Your task to perform on an android device: turn on notifications settings in the gmail app Image 0: 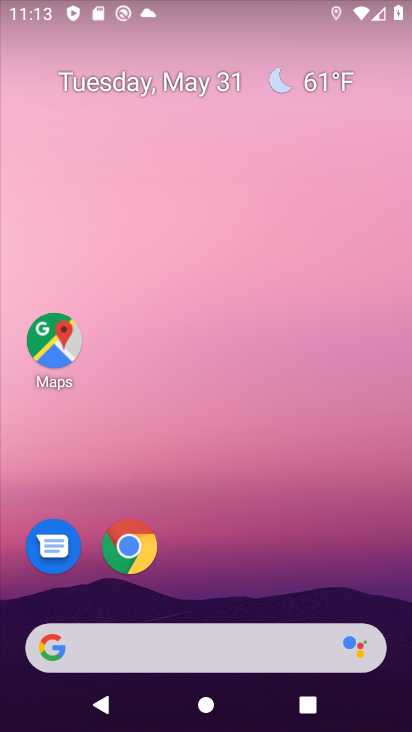
Step 0: drag from (266, 609) to (246, 43)
Your task to perform on an android device: turn on notifications settings in the gmail app Image 1: 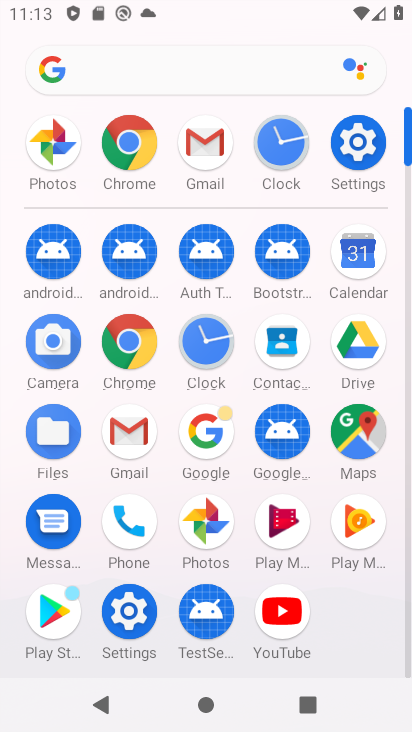
Step 1: click (122, 430)
Your task to perform on an android device: turn on notifications settings in the gmail app Image 2: 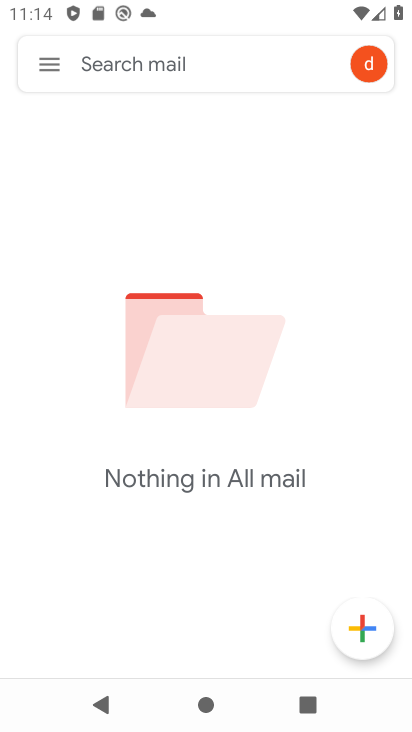
Step 2: click (48, 61)
Your task to perform on an android device: turn on notifications settings in the gmail app Image 3: 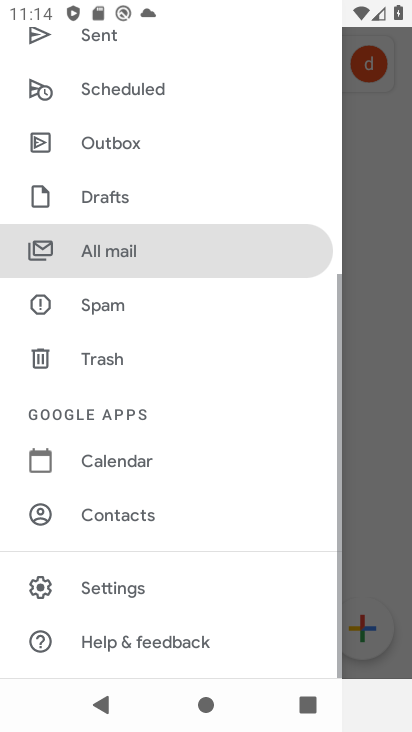
Step 3: click (126, 566)
Your task to perform on an android device: turn on notifications settings in the gmail app Image 4: 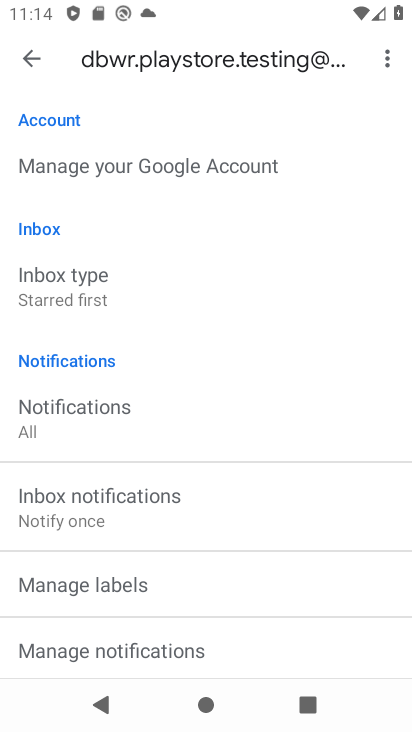
Step 4: click (15, 56)
Your task to perform on an android device: turn on notifications settings in the gmail app Image 5: 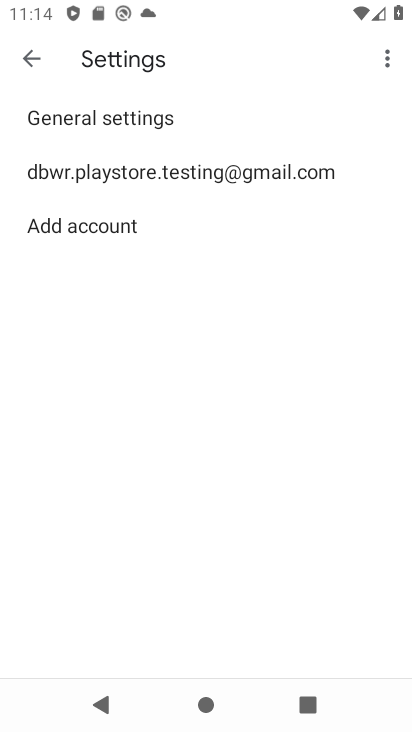
Step 5: click (62, 107)
Your task to perform on an android device: turn on notifications settings in the gmail app Image 6: 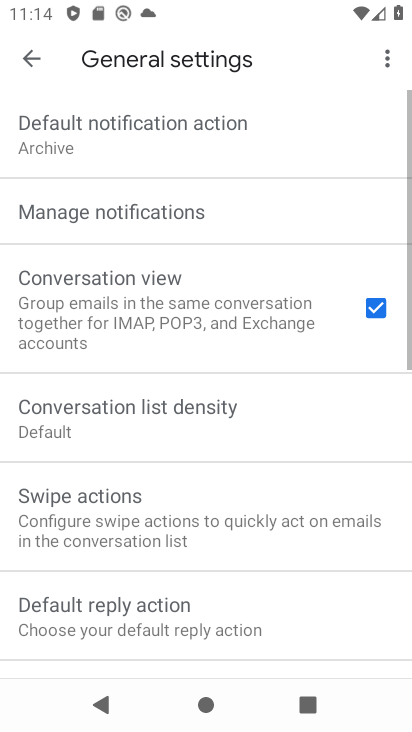
Step 6: click (166, 193)
Your task to perform on an android device: turn on notifications settings in the gmail app Image 7: 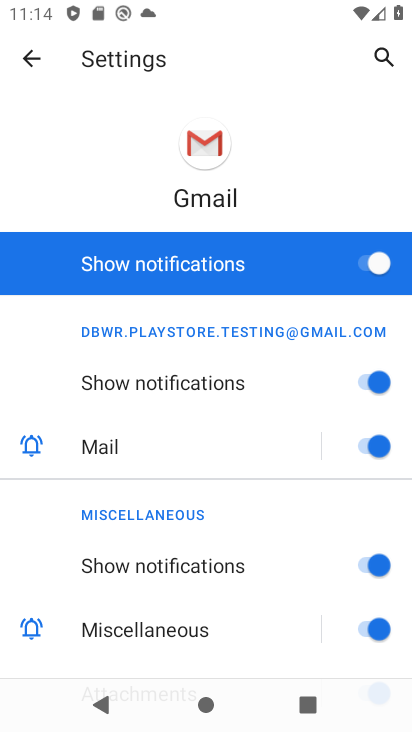
Step 7: task complete